Your task to perform on an android device: toggle notification dots Image 0: 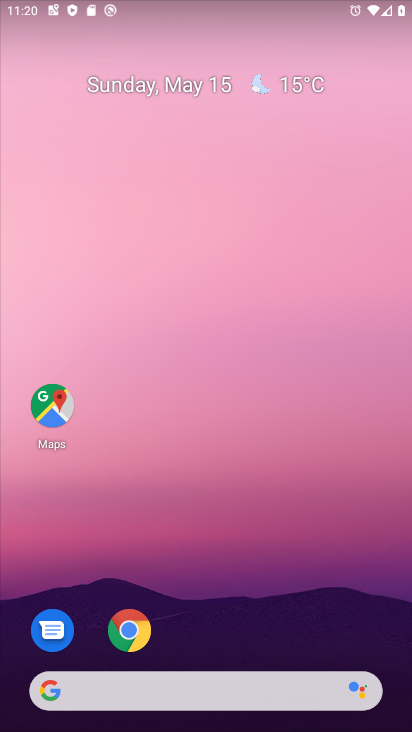
Step 0: drag from (218, 729) to (218, 112)
Your task to perform on an android device: toggle notification dots Image 1: 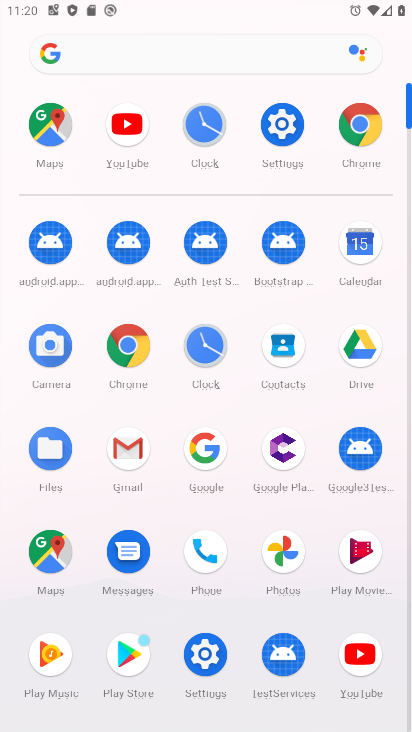
Step 1: click (290, 123)
Your task to perform on an android device: toggle notification dots Image 2: 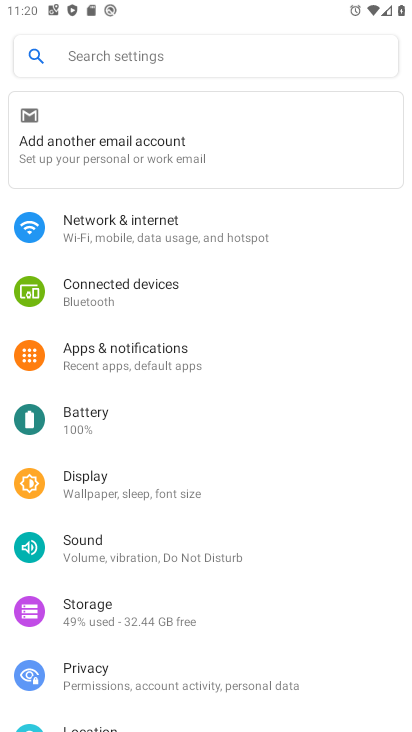
Step 2: click (124, 352)
Your task to perform on an android device: toggle notification dots Image 3: 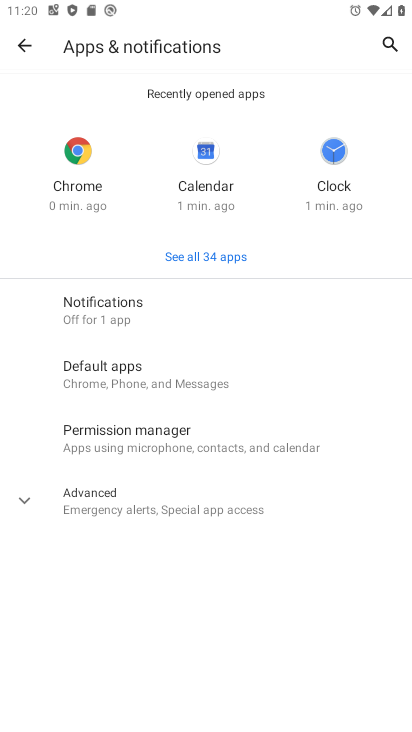
Step 3: click (97, 307)
Your task to perform on an android device: toggle notification dots Image 4: 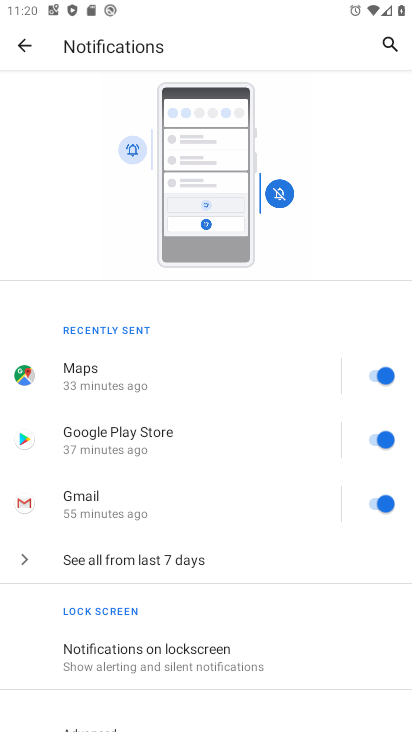
Step 4: drag from (153, 620) to (165, 375)
Your task to perform on an android device: toggle notification dots Image 5: 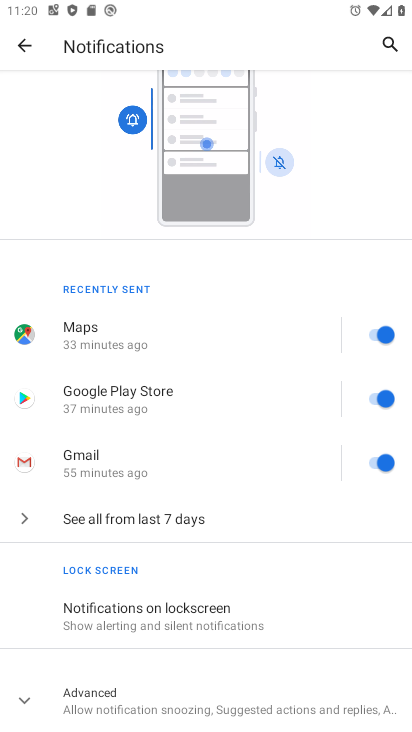
Step 5: click (146, 703)
Your task to perform on an android device: toggle notification dots Image 6: 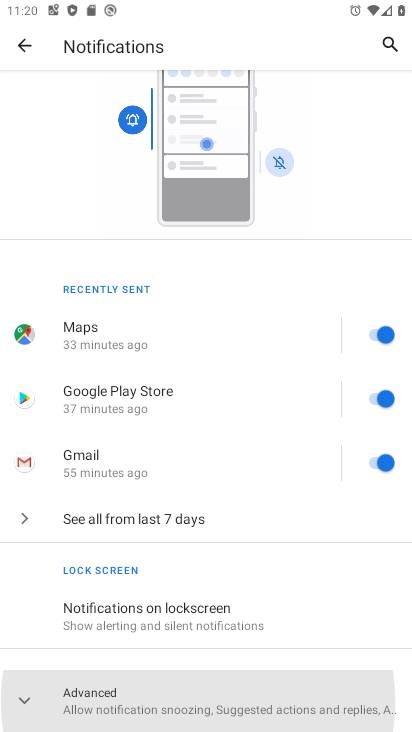
Step 6: click (146, 703)
Your task to perform on an android device: toggle notification dots Image 7: 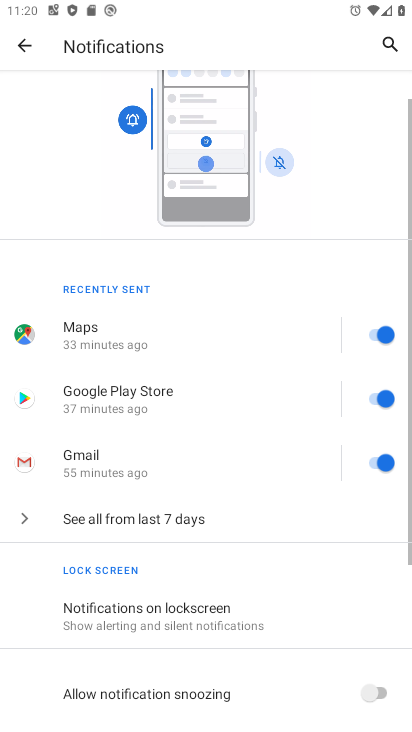
Step 7: drag from (272, 687) to (272, 352)
Your task to perform on an android device: toggle notification dots Image 8: 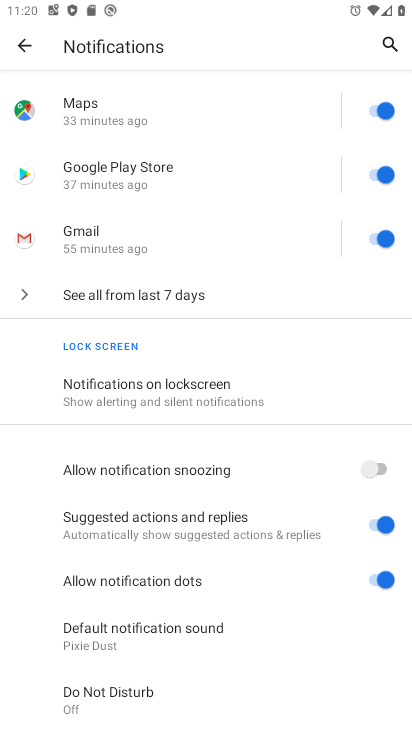
Step 8: click (371, 575)
Your task to perform on an android device: toggle notification dots Image 9: 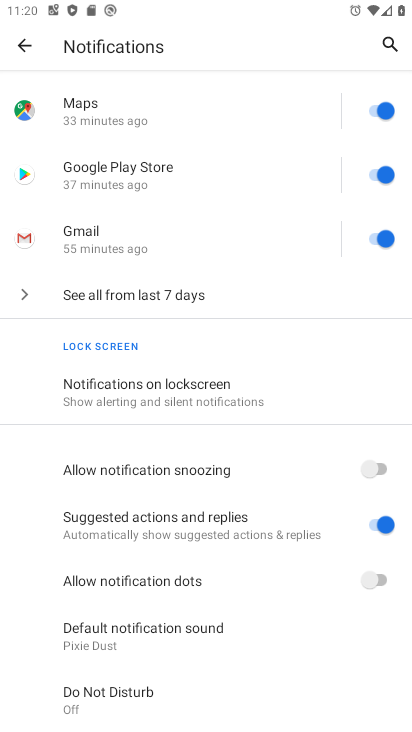
Step 9: task complete